Your task to perform on an android device: Open network settings Image 0: 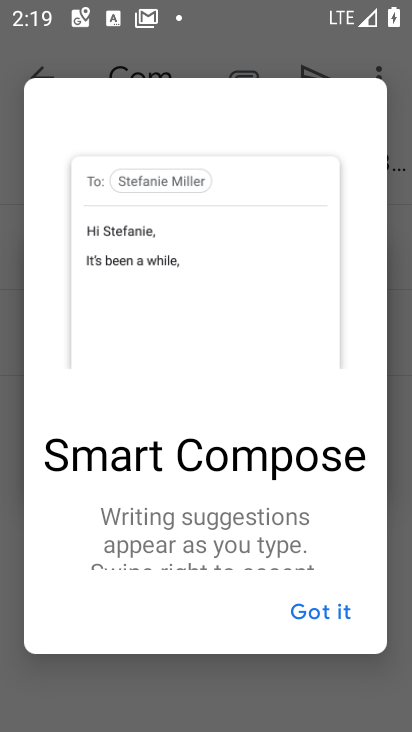
Step 0: press home button
Your task to perform on an android device: Open network settings Image 1: 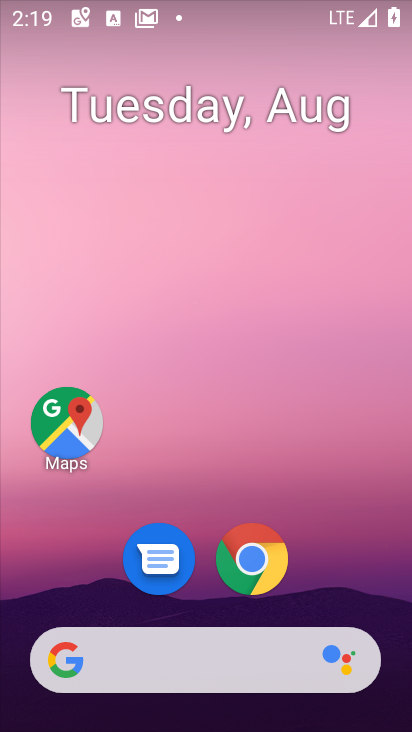
Step 1: drag from (199, 498) to (148, 151)
Your task to perform on an android device: Open network settings Image 2: 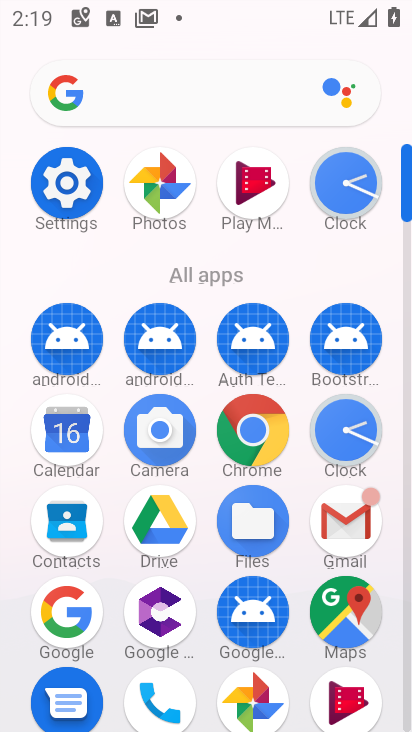
Step 2: click (56, 193)
Your task to perform on an android device: Open network settings Image 3: 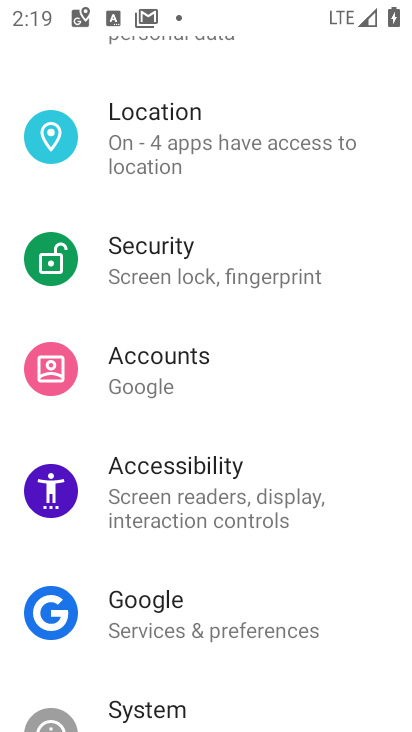
Step 3: drag from (173, 198) to (185, 497)
Your task to perform on an android device: Open network settings Image 4: 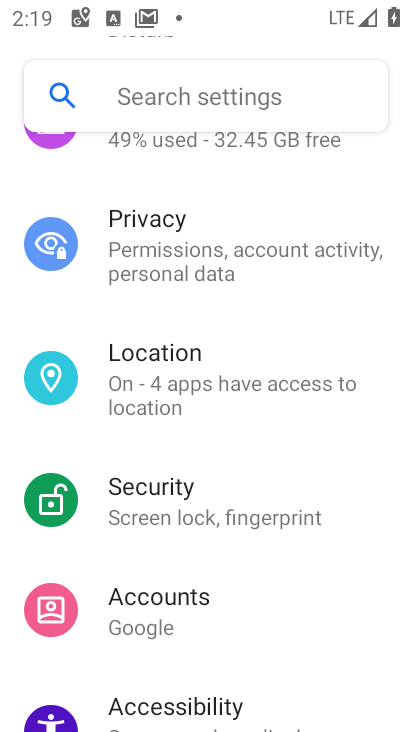
Step 4: drag from (222, 196) to (263, 467)
Your task to perform on an android device: Open network settings Image 5: 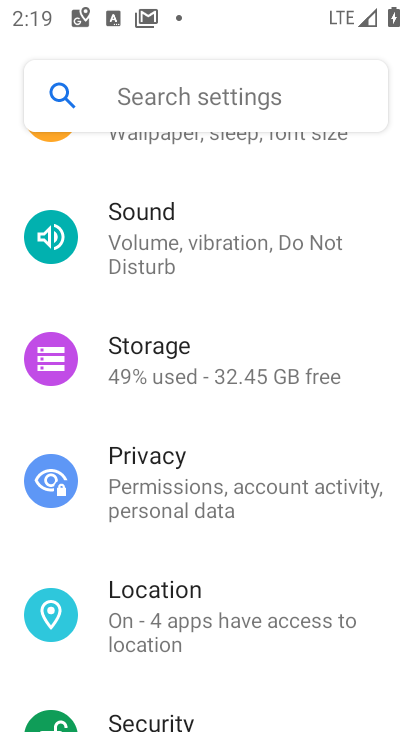
Step 5: drag from (250, 179) to (262, 445)
Your task to perform on an android device: Open network settings Image 6: 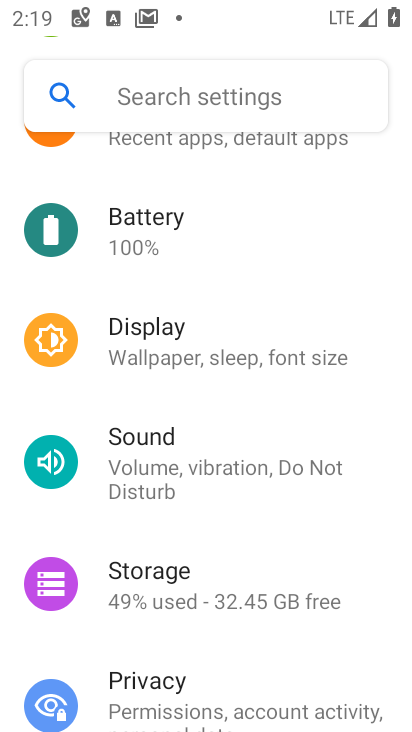
Step 6: drag from (221, 214) to (221, 495)
Your task to perform on an android device: Open network settings Image 7: 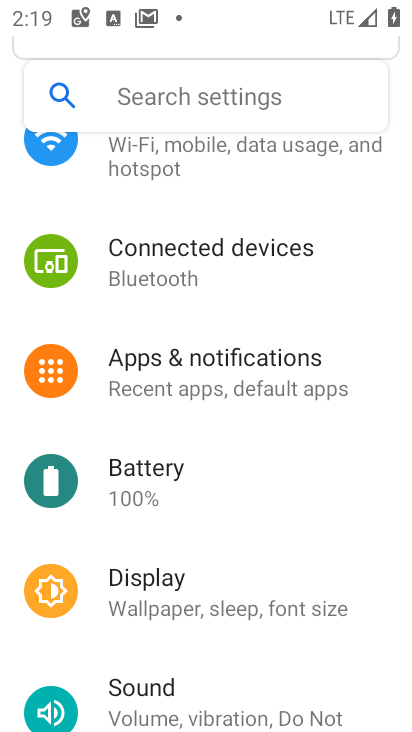
Step 7: drag from (192, 184) to (192, 418)
Your task to perform on an android device: Open network settings Image 8: 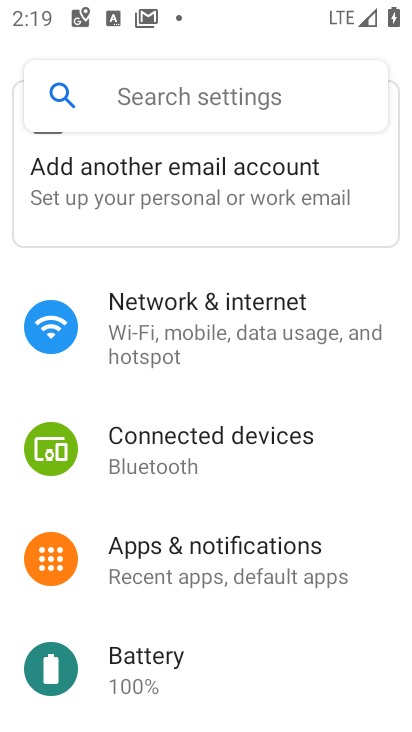
Step 8: click (165, 318)
Your task to perform on an android device: Open network settings Image 9: 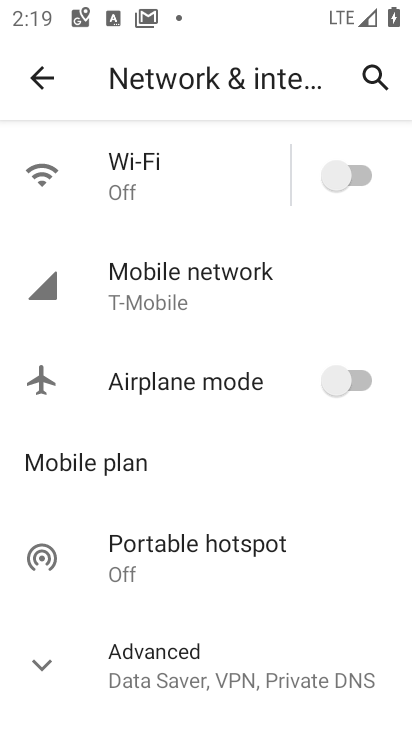
Step 9: click (150, 173)
Your task to perform on an android device: Open network settings Image 10: 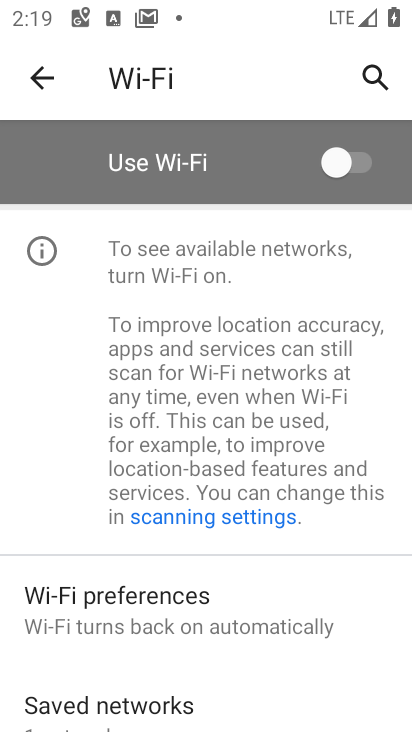
Step 10: task complete